Your task to perform on an android device: Show me productivity apps on the Play Store Image 0: 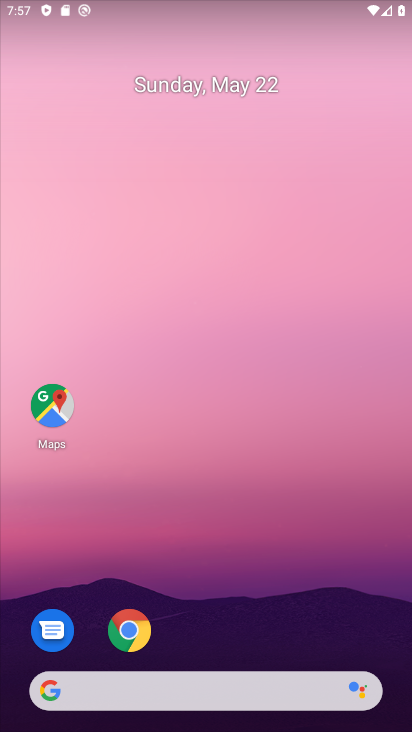
Step 0: drag from (359, 642) to (207, 121)
Your task to perform on an android device: Show me productivity apps on the Play Store Image 1: 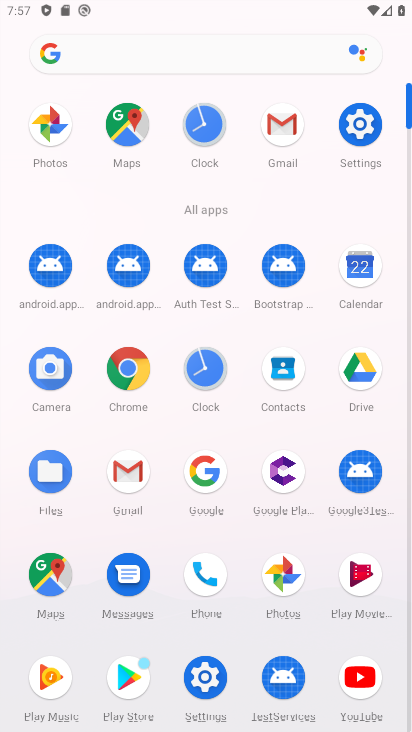
Step 1: click (127, 663)
Your task to perform on an android device: Show me productivity apps on the Play Store Image 2: 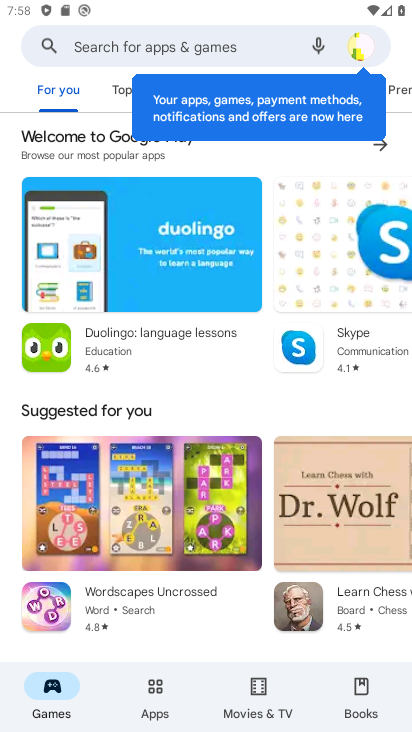
Step 2: click (168, 710)
Your task to perform on an android device: Show me productivity apps on the Play Store Image 3: 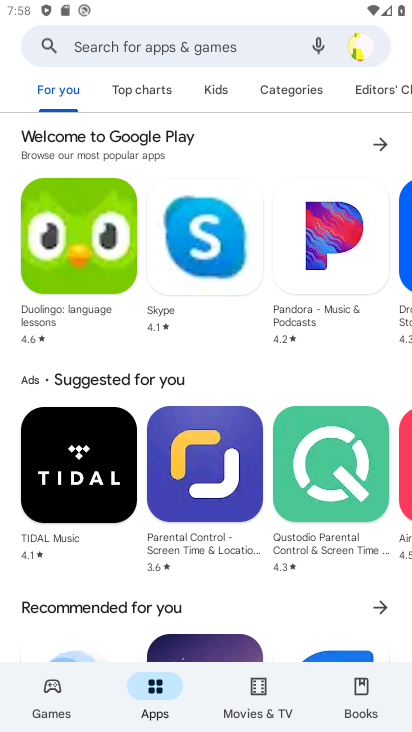
Step 3: click (140, 82)
Your task to perform on an android device: Show me productivity apps on the Play Store Image 4: 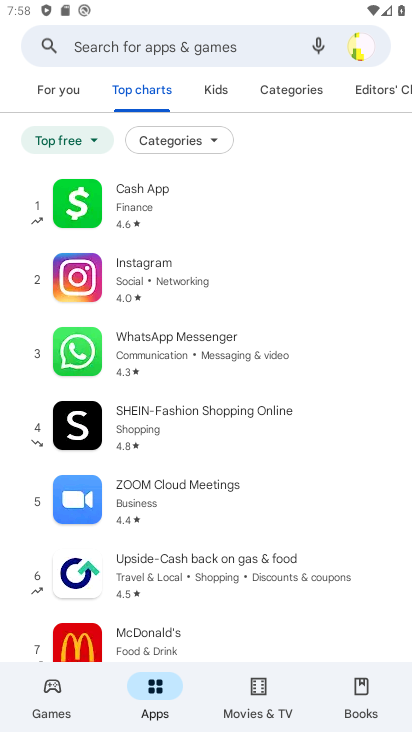
Step 4: click (206, 137)
Your task to perform on an android device: Show me productivity apps on the Play Store Image 5: 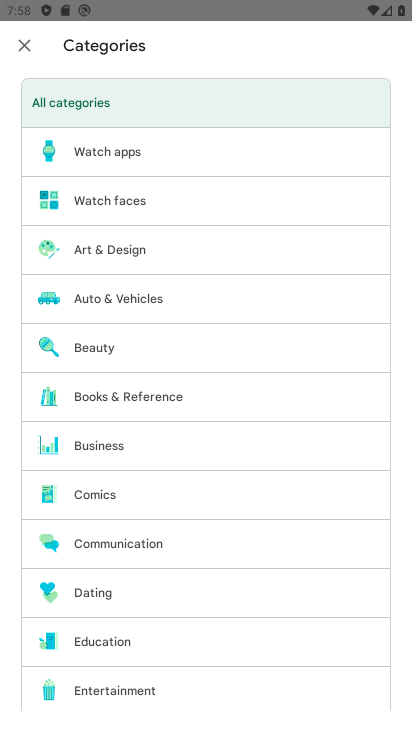
Step 5: drag from (192, 689) to (288, 99)
Your task to perform on an android device: Show me productivity apps on the Play Store Image 6: 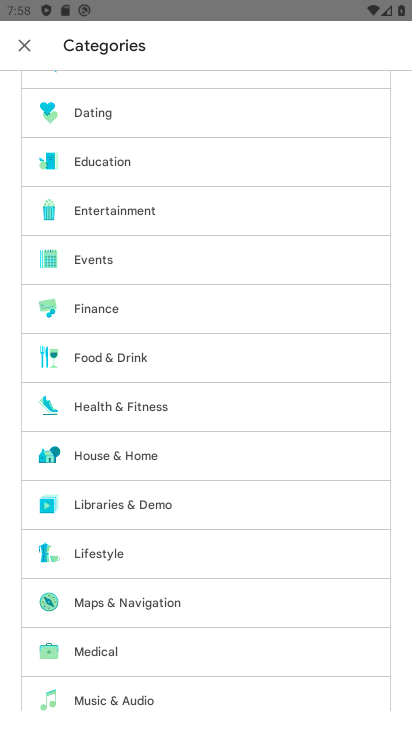
Step 6: drag from (216, 609) to (291, 116)
Your task to perform on an android device: Show me productivity apps on the Play Store Image 7: 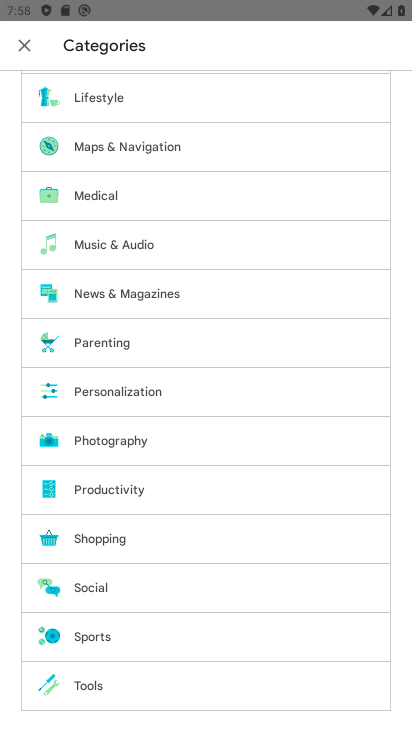
Step 7: click (196, 492)
Your task to perform on an android device: Show me productivity apps on the Play Store Image 8: 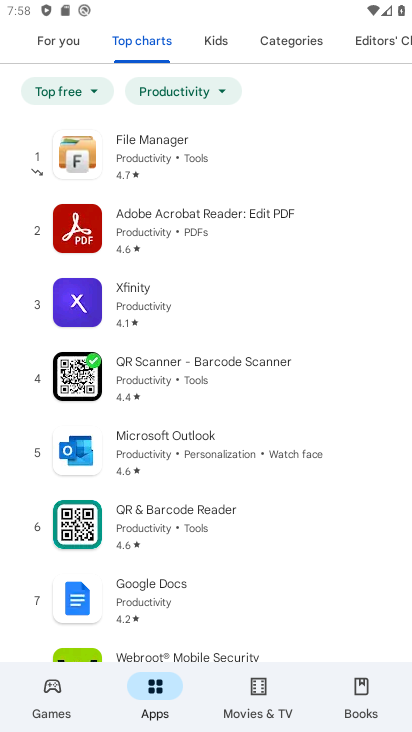
Step 8: task complete